Your task to perform on an android device: Open the Play Movies app and select the watchlist tab. Image 0: 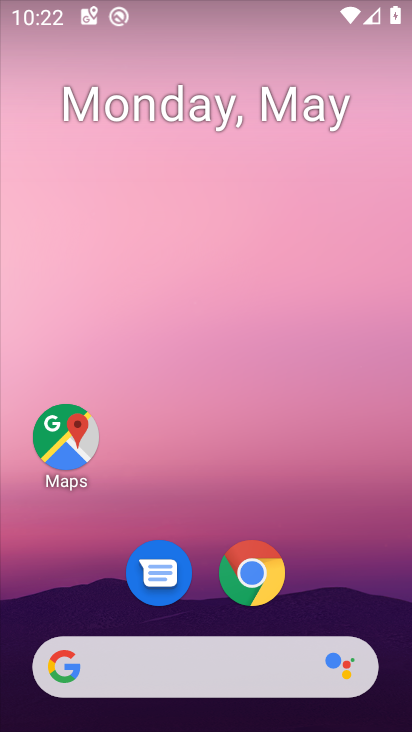
Step 0: drag from (211, 391) to (266, 56)
Your task to perform on an android device: Open the Play Movies app and select the watchlist tab. Image 1: 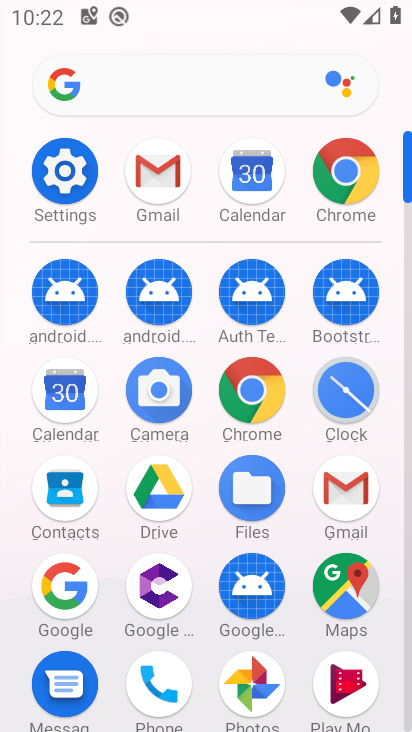
Step 1: click (349, 682)
Your task to perform on an android device: Open the Play Movies app and select the watchlist tab. Image 2: 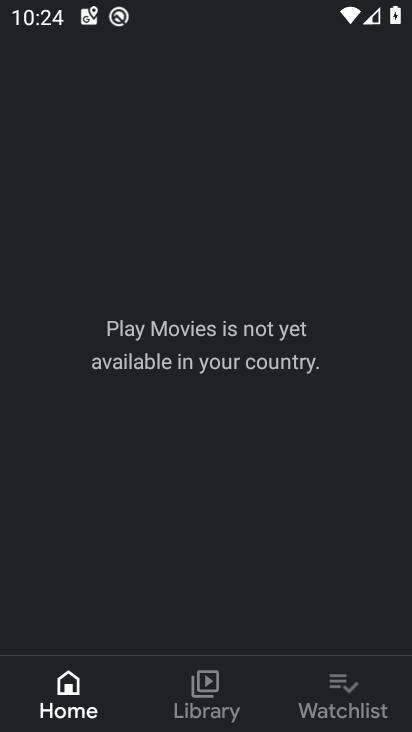
Step 2: click (332, 693)
Your task to perform on an android device: Open the Play Movies app and select the watchlist tab. Image 3: 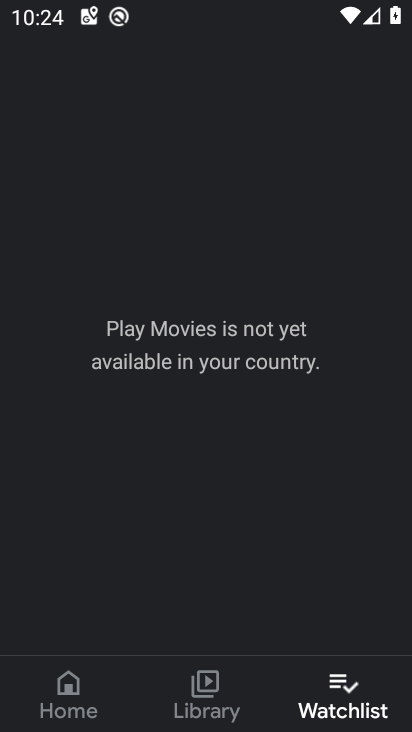
Step 3: task complete